Your task to perform on an android device: toggle notifications settings in the gmail app Image 0: 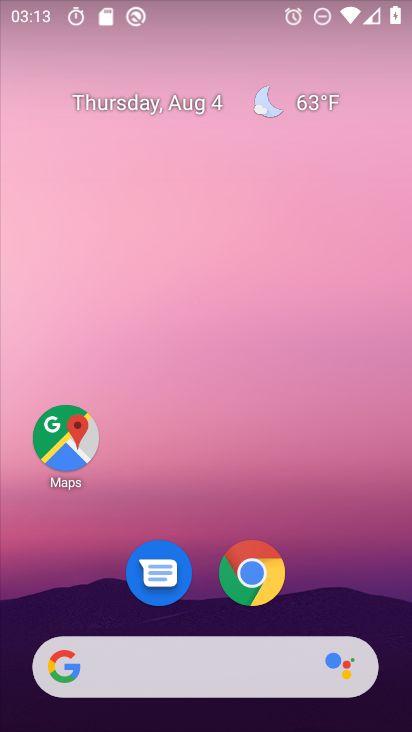
Step 0: click (303, 63)
Your task to perform on an android device: toggle notifications settings in the gmail app Image 1: 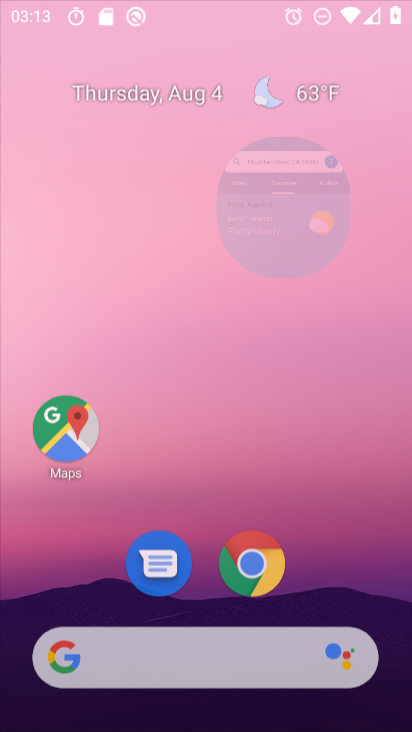
Step 1: drag from (333, 521) to (227, 74)
Your task to perform on an android device: toggle notifications settings in the gmail app Image 2: 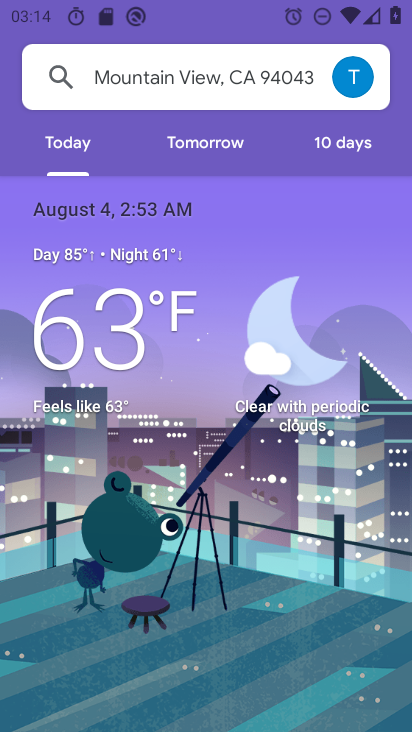
Step 2: press home button
Your task to perform on an android device: toggle notifications settings in the gmail app Image 3: 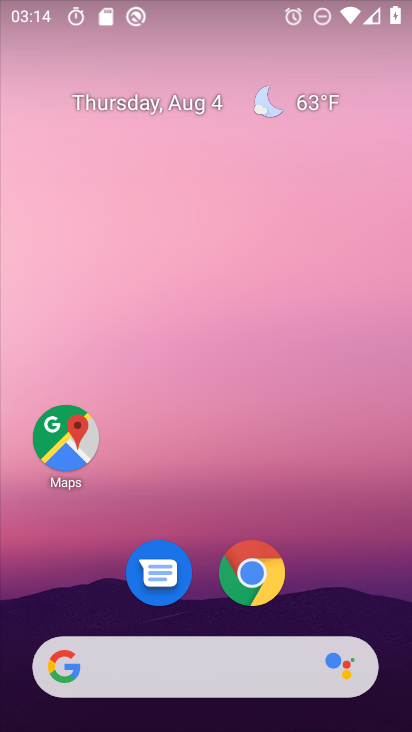
Step 3: drag from (347, 544) to (339, 70)
Your task to perform on an android device: toggle notifications settings in the gmail app Image 4: 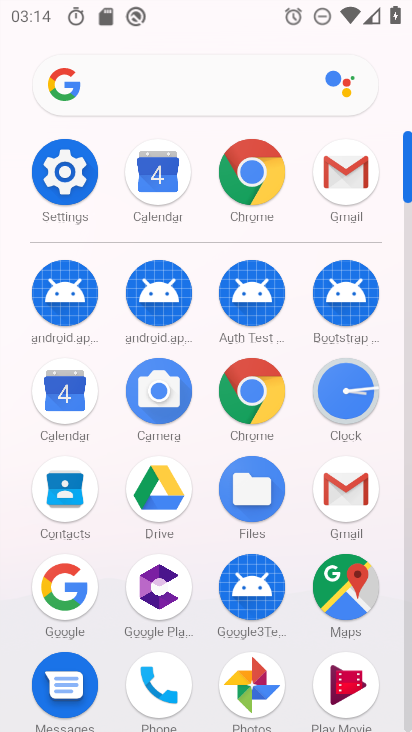
Step 4: click (341, 166)
Your task to perform on an android device: toggle notifications settings in the gmail app Image 5: 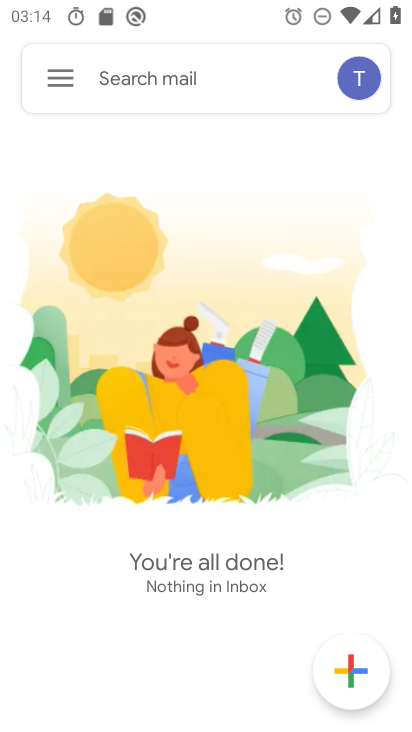
Step 5: click (75, 70)
Your task to perform on an android device: toggle notifications settings in the gmail app Image 6: 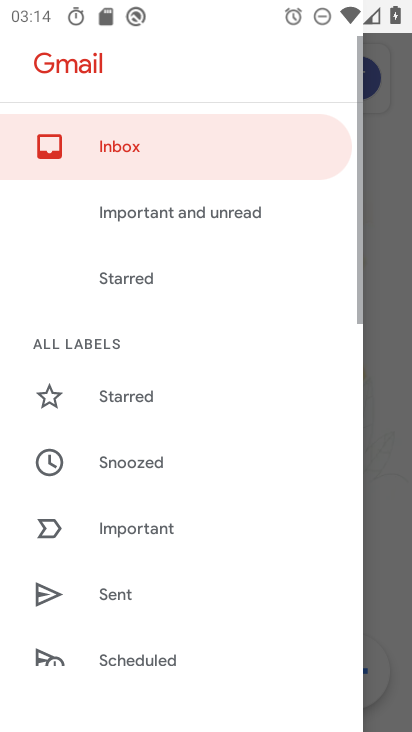
Step 6: drag from (173, 618) to (261, 120)
Your task to perform on an android device: toggle notifications settings in the gmail app Image 7: 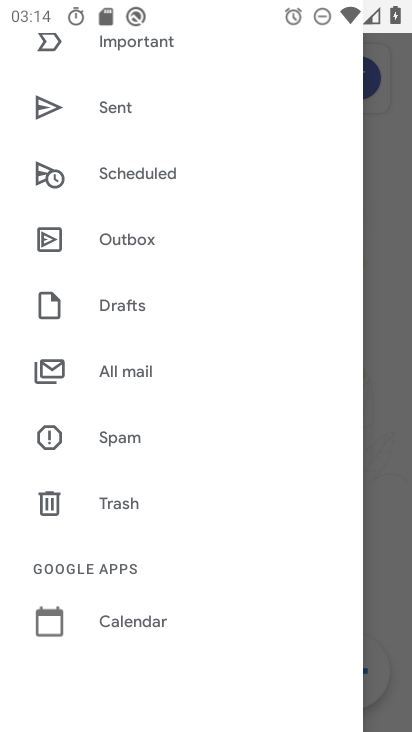
Step 7: drag from (191, 538) to (229, 111)
Your task to perform on an android device: toggle notifications settings in the gmail app Image 8: 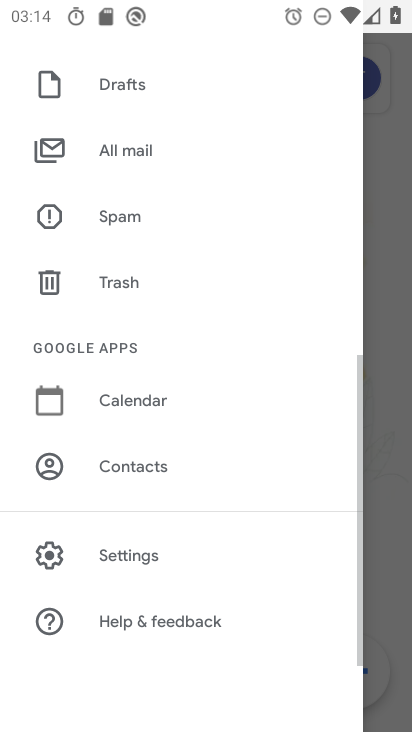
Step 8: click (144, 556)
Your task to perform on an android device: toggle notifications settings in the gmail app Image 9: 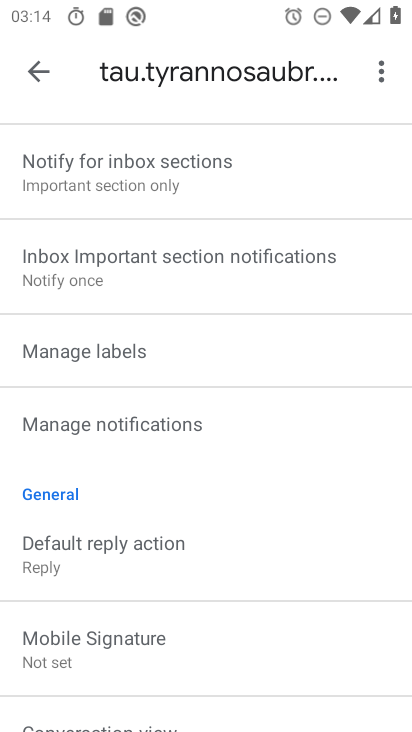
Step 9: click (132, 429)
Your task to perform on an android device: toggle notifications settings in the gmail app Image 10: 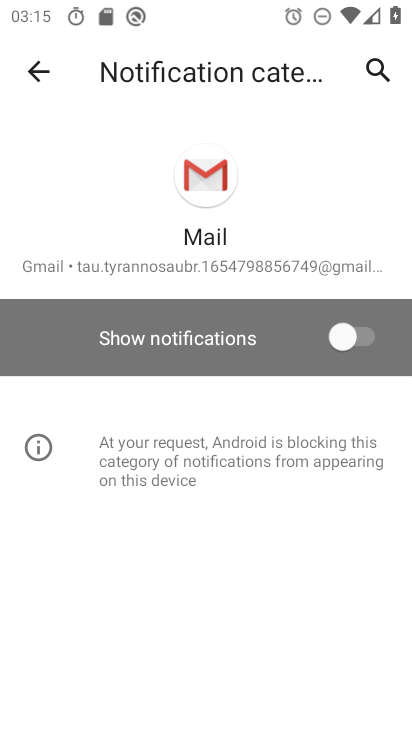
Step 10: click (336, 322)
Your task to perform on an android device: toggle notifications settings in the gmail app Image 11: 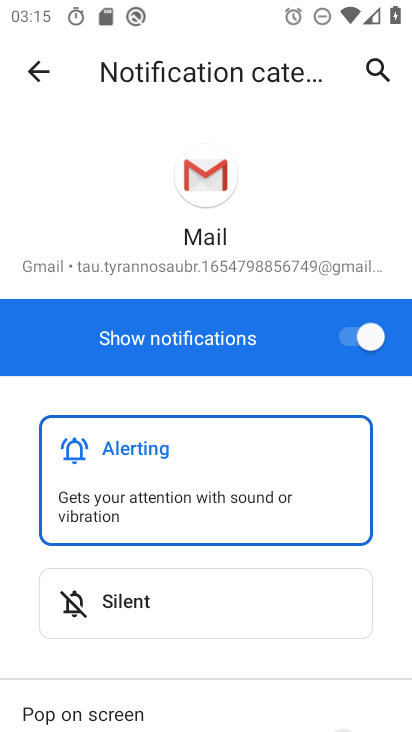
Step 11: task complete